Your task to perform on an android device: Go to display settings Image 0: 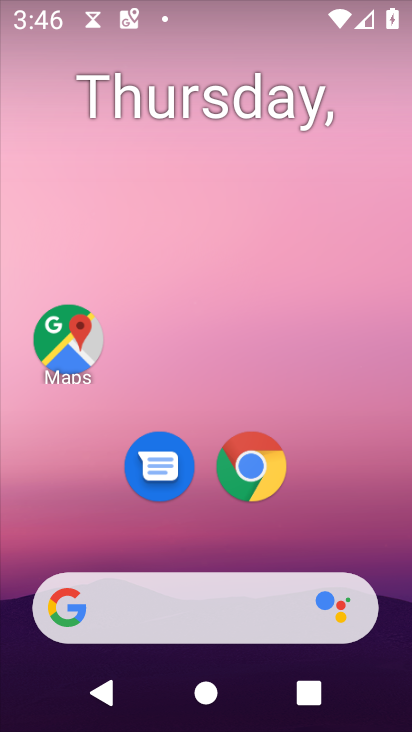
Step 0: drag from (293, 547) to (353, 16)
Your task to perform on an android device: Go to display settings Image 1: 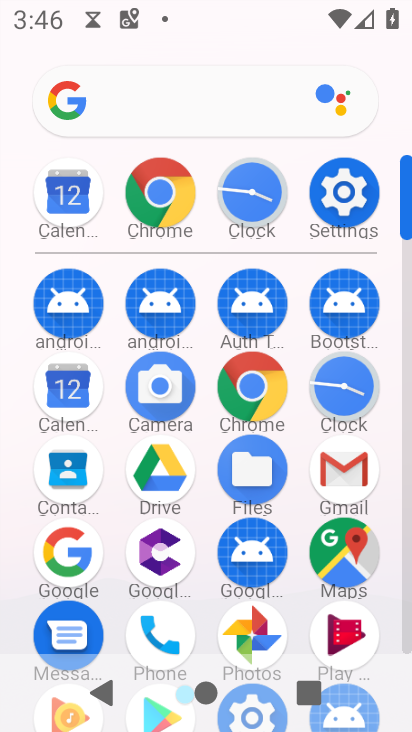
Step 1: click (366, 179)
Your task to perform on an android device: Go to display settings Image 2: 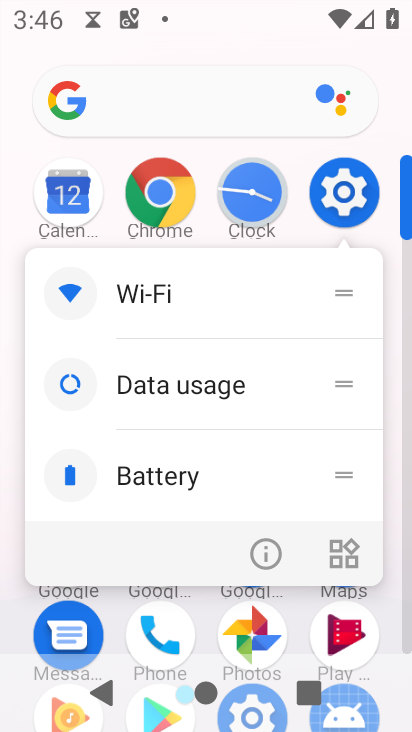
Step 2: click (367, 175)
Your task to perform on an android device: Go to display settings Image 3: 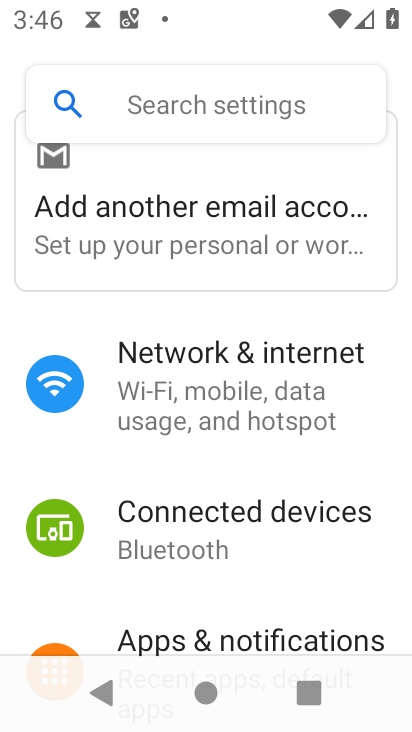
Step 3: drag from (273, 622) to (334, 315)
Your task to perform on an android device: Go to display settings Image 4: 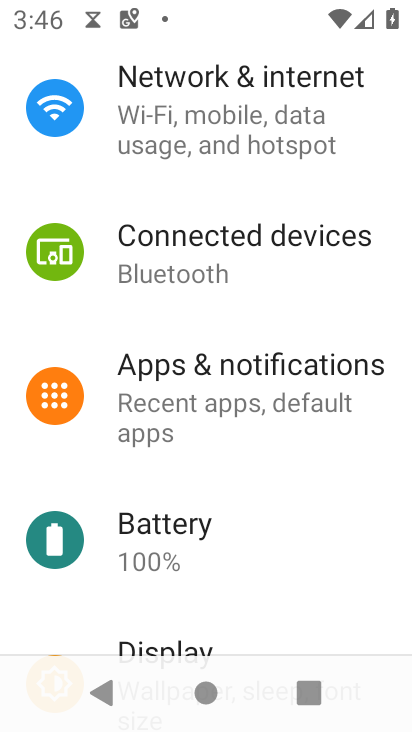
Step 4: drag from (307, 605) to (327, 390)
Your task to perform on an android device: Go to display settings Image 5: 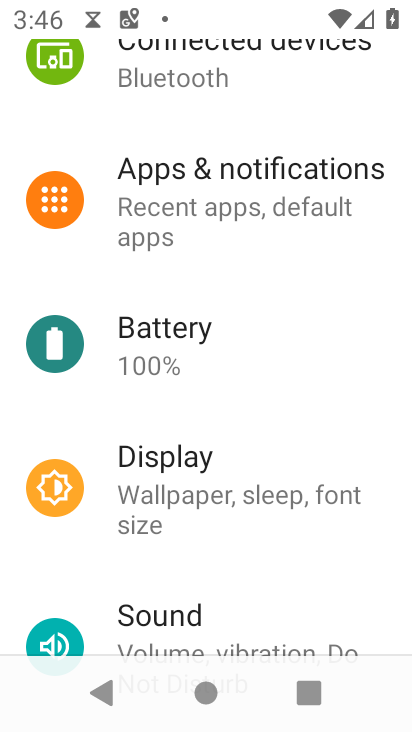
Step 5: click (239, 452)
Your task to perform on an android device: Go to display settings Image 6: 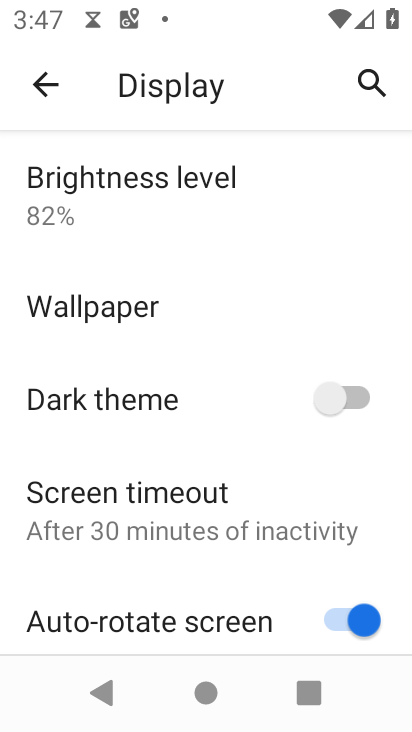
Step 6: task complete